Your task to perform on an android device: check out phone information Image 0: 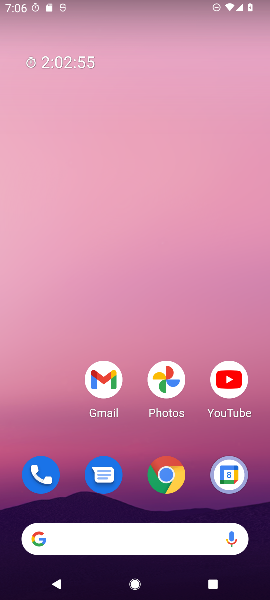
Step 0: drag from (68, 414) to (69, 164)
Your task to perform on an android device: check out phone information Image 1: 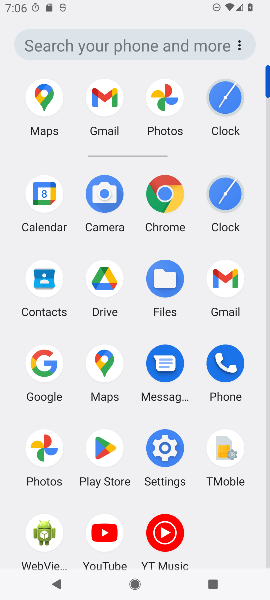
Step 1: click (235, 360)
Your task to perform on an android device: check out phone information Image 2: 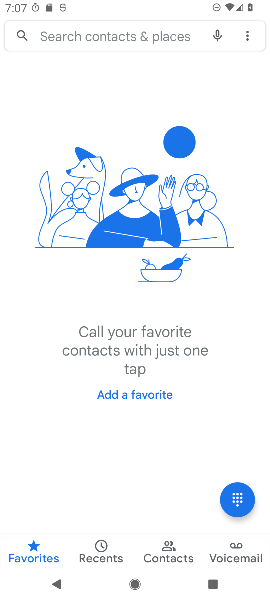
Step 2: task complete